Your task to perform on an android device: install app "Clock" Image 0: 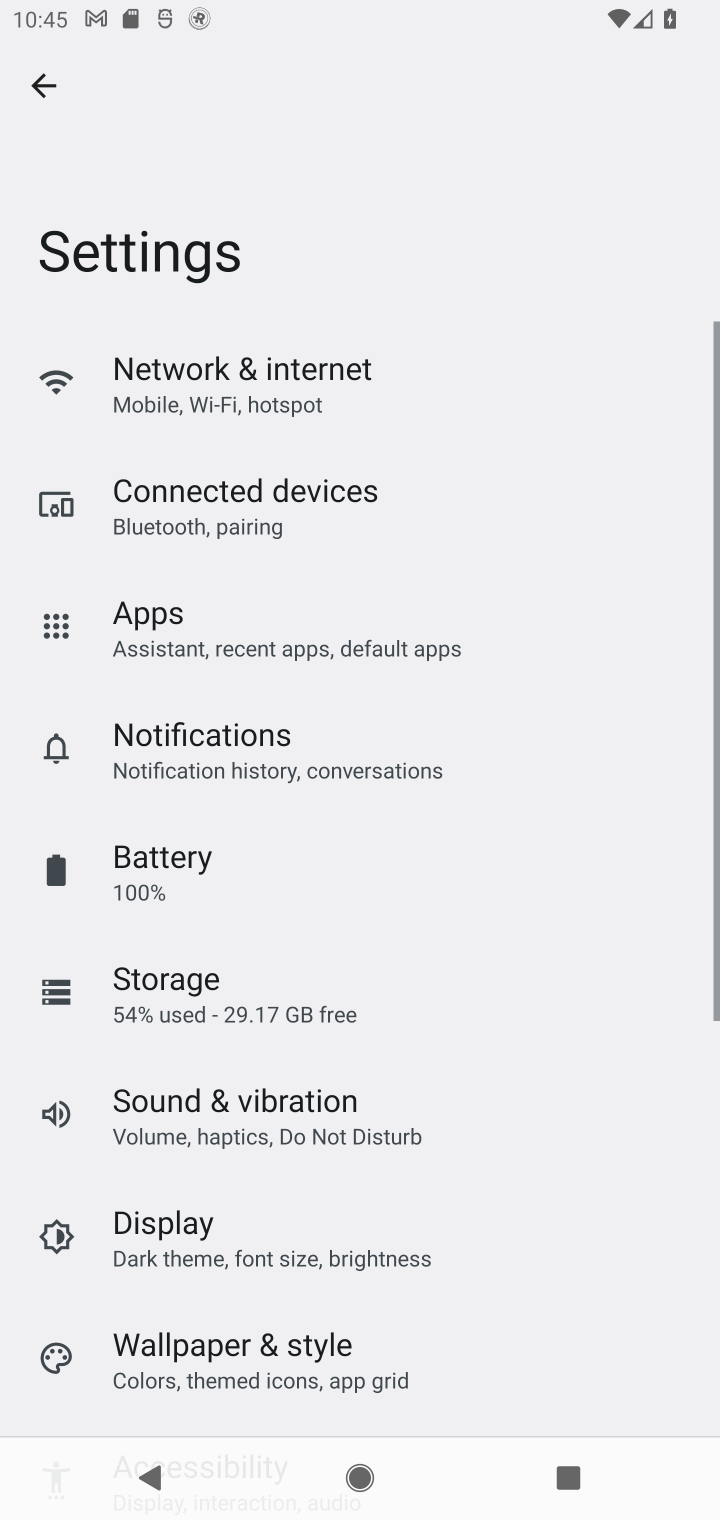
Step 0: press home button
Your task to perform on an android device: install app "Clock" Image 1: 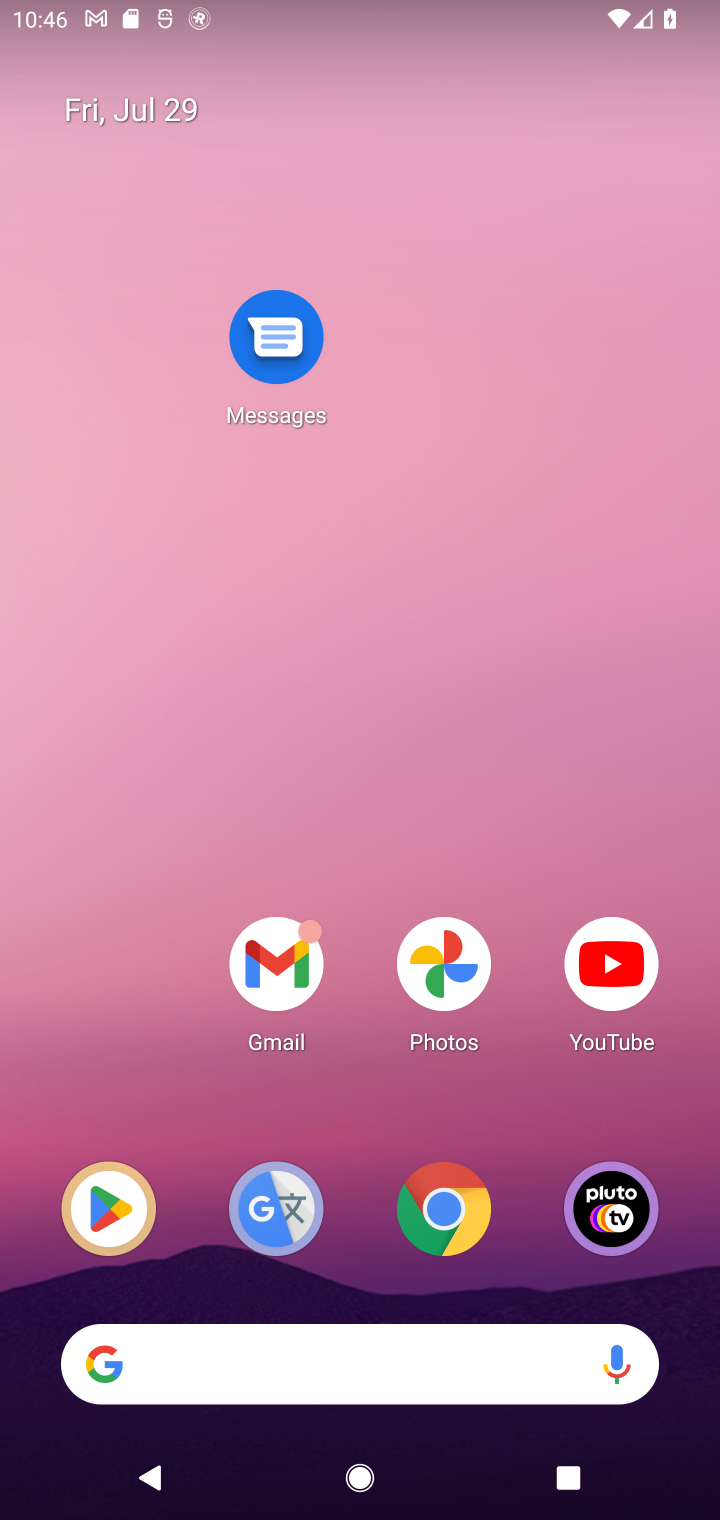
Step 1: drag from (349, 1329) to (315, 135)
Your task to perform on an android device: install app "Clock" Image 2: 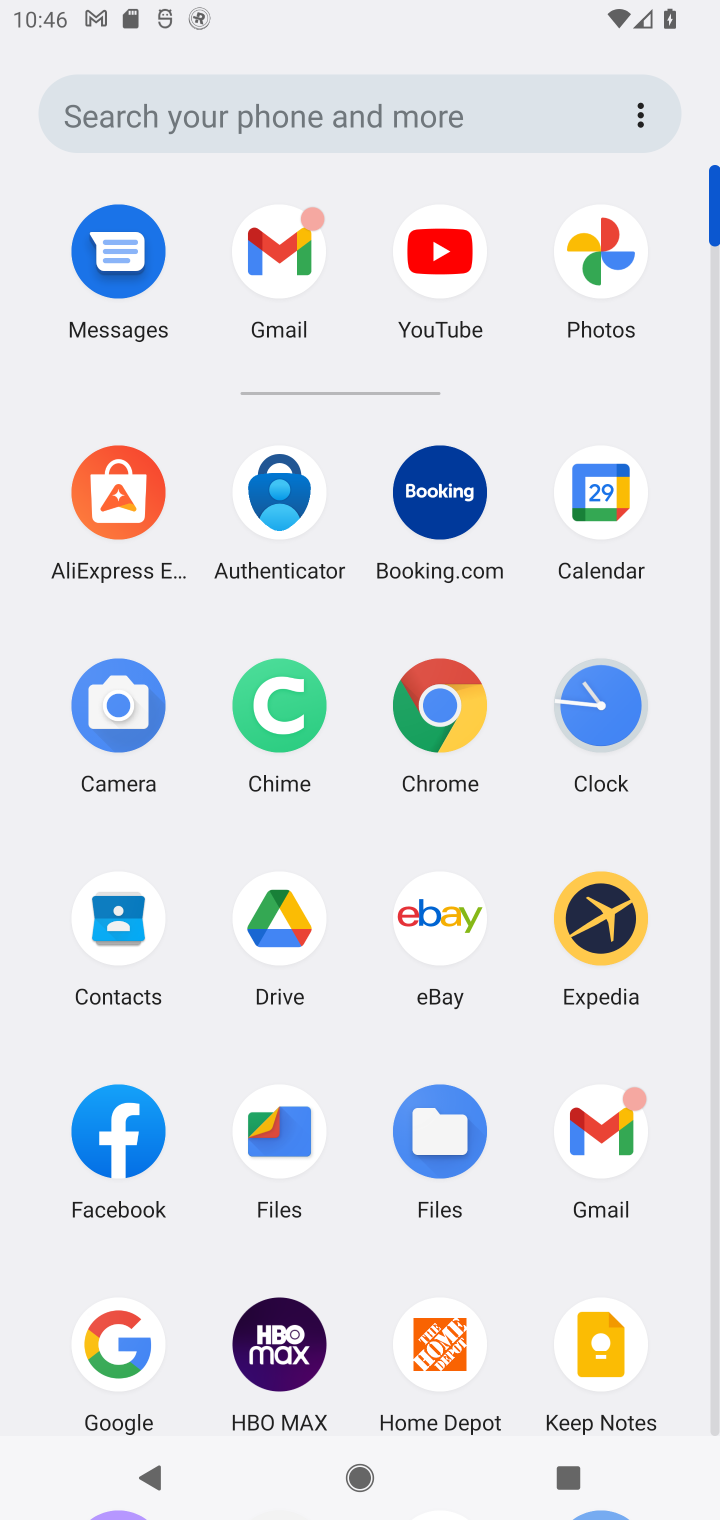
Step 2: drag from (346, 1159) to (287, 439)
Your task to perform on an android device: install app "Clock" Image 3: 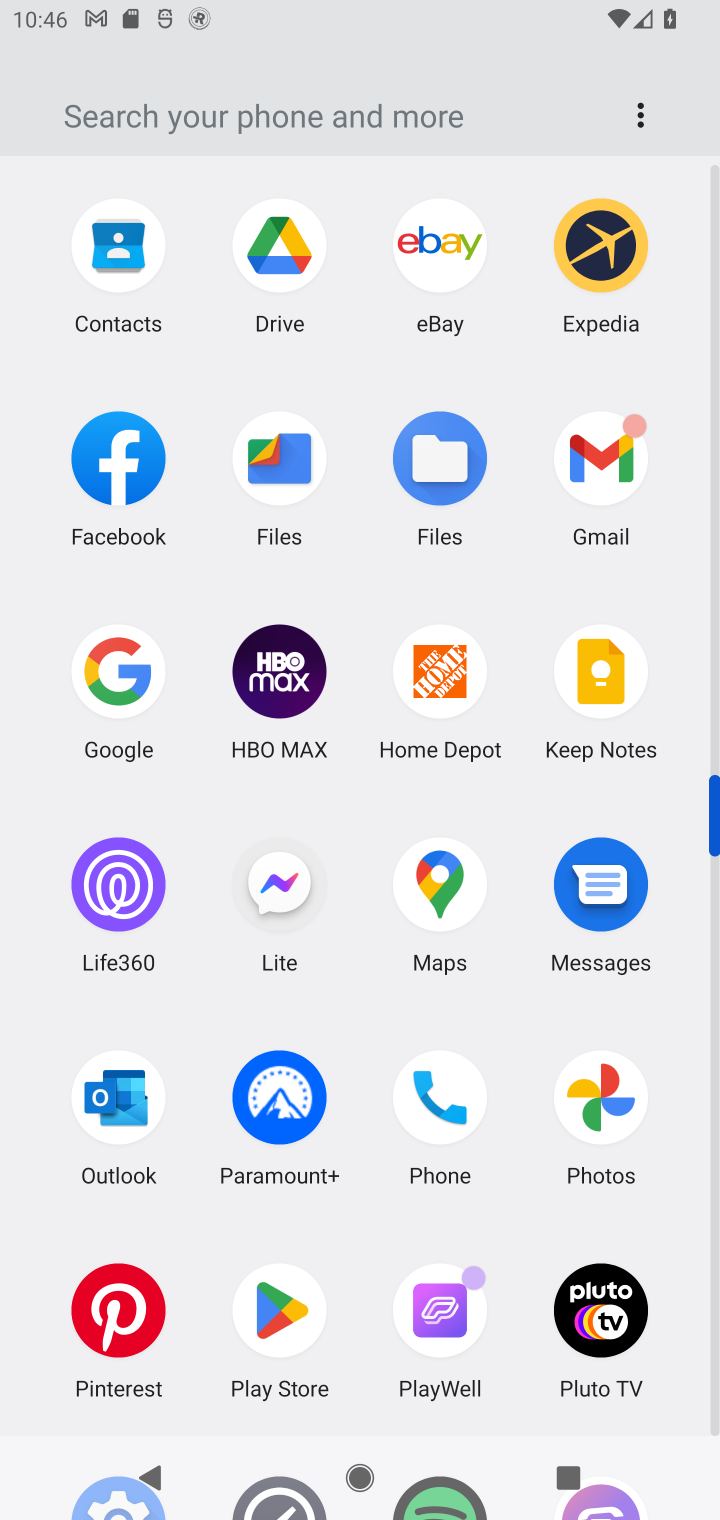
Step 3: drag from (395, 1224) to (367, 753)
Your task to perform on an android device: install app "Clock" Image 4: 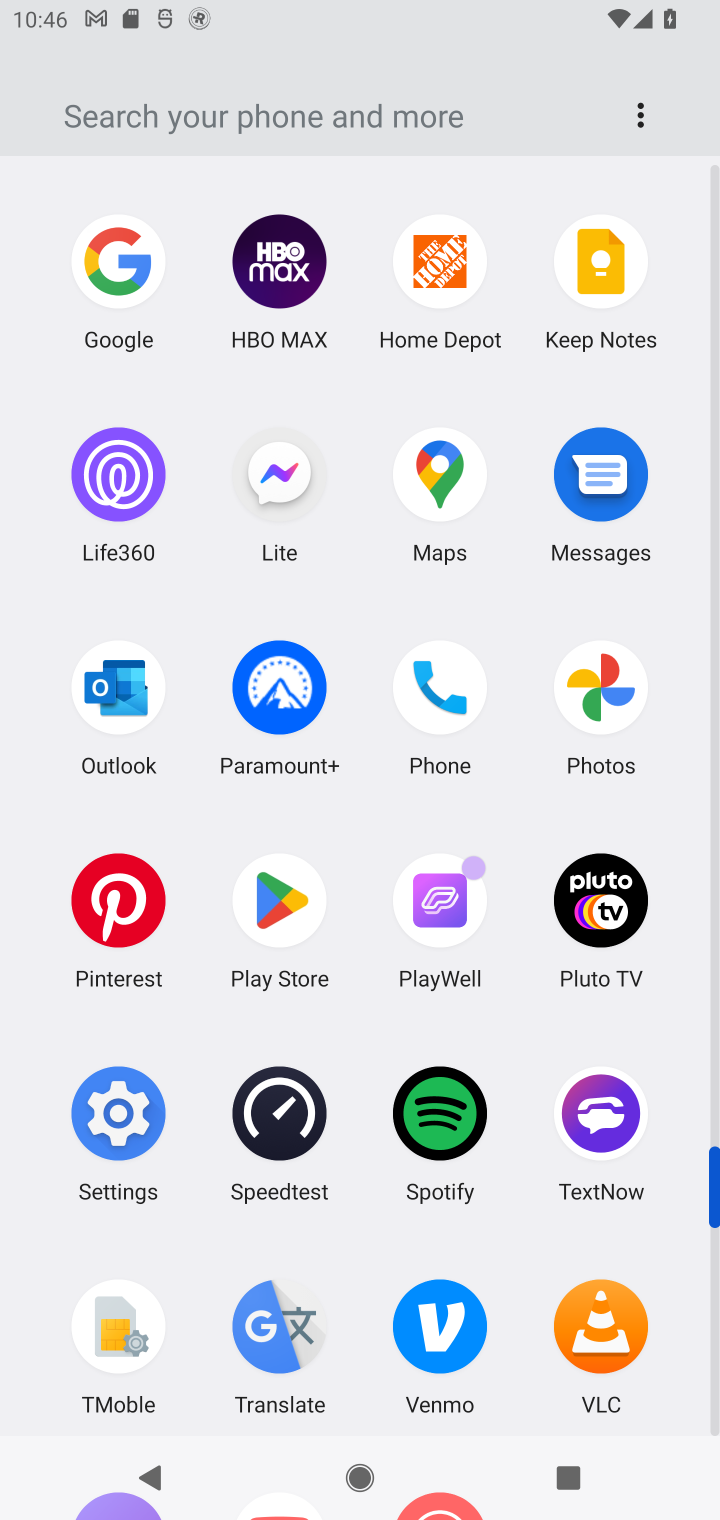
Step 4: click (274, 907)
Your task to perform on an android device: install app "Clock" Image 5: 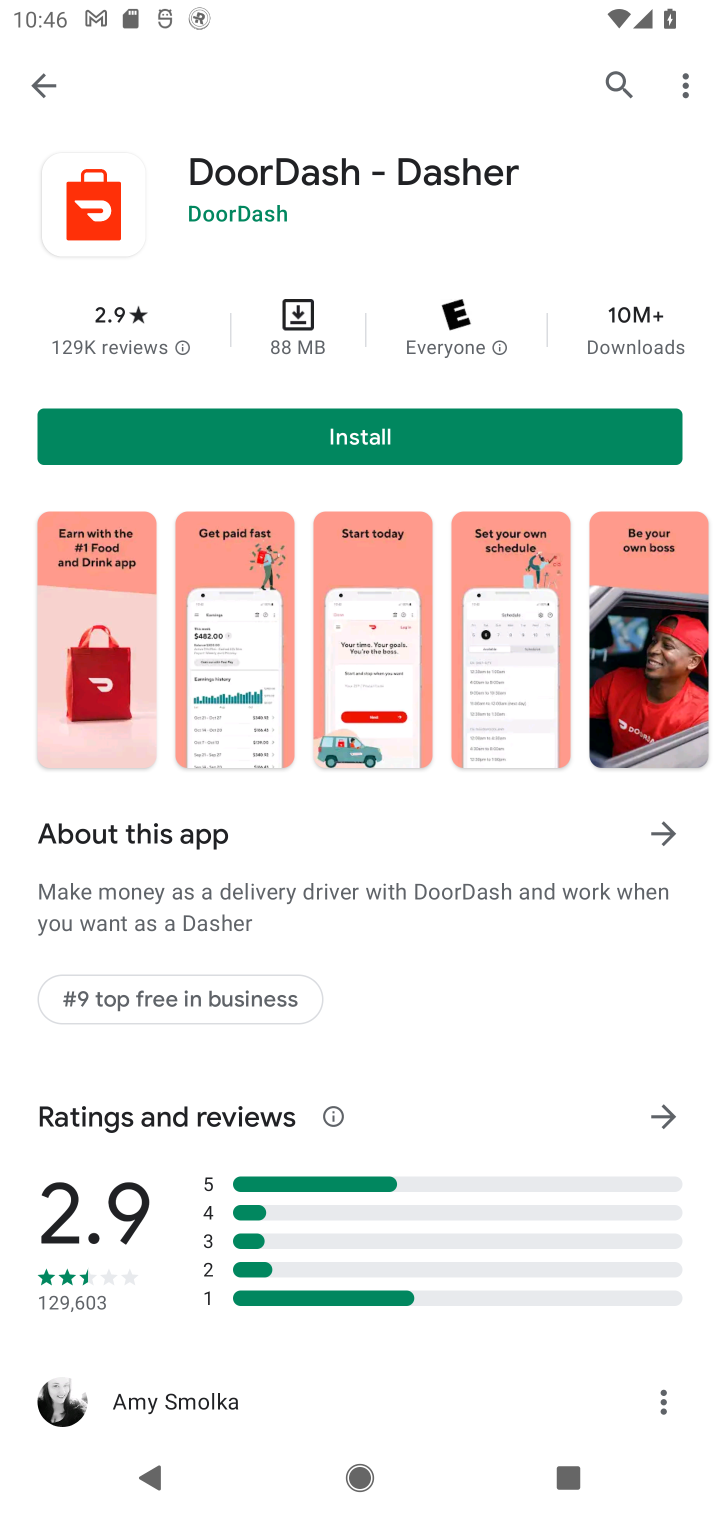
Step 5: click (616, 82)
Your task to perform on an android device: install app "Clock" Image 6: 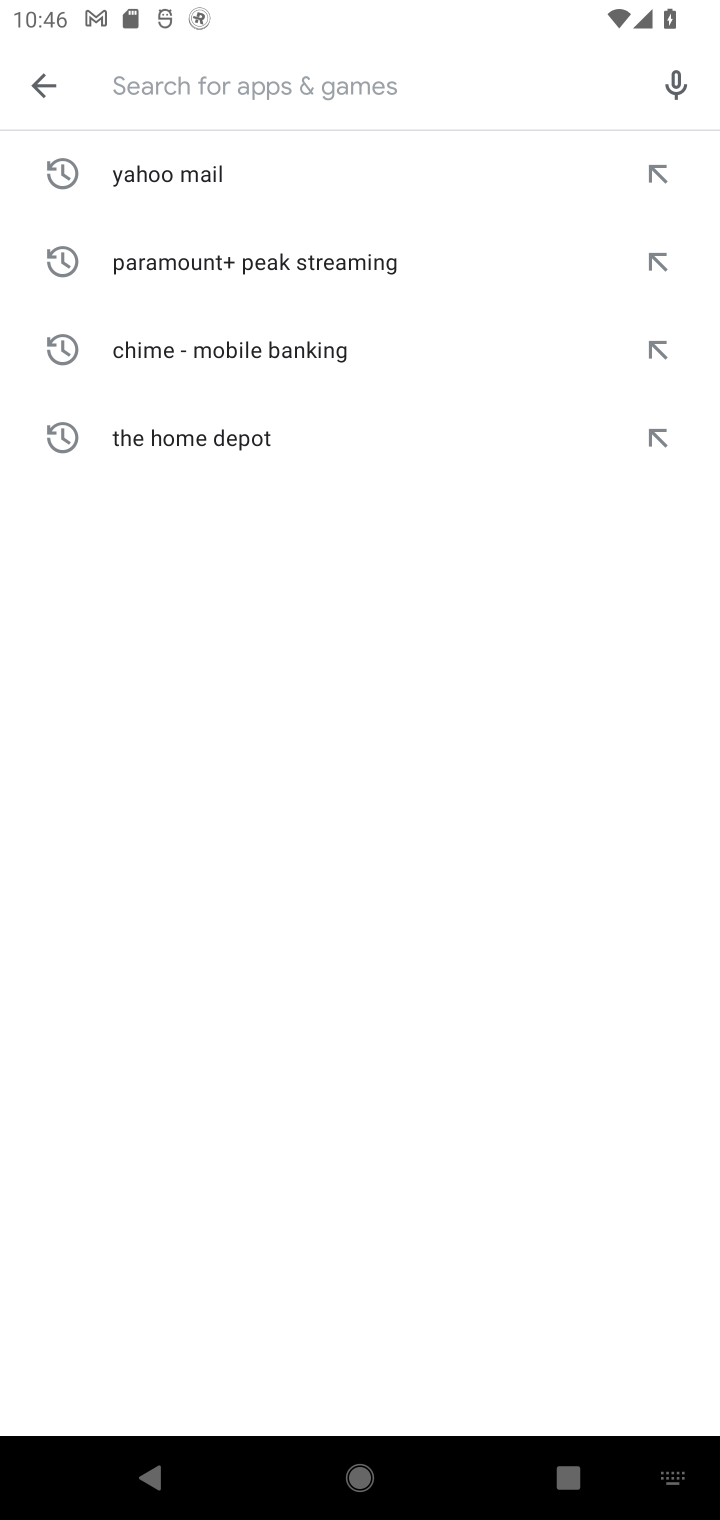
Step 6: type "Clock"
Your task to perform on an android device: install app "Clock" Image 7: 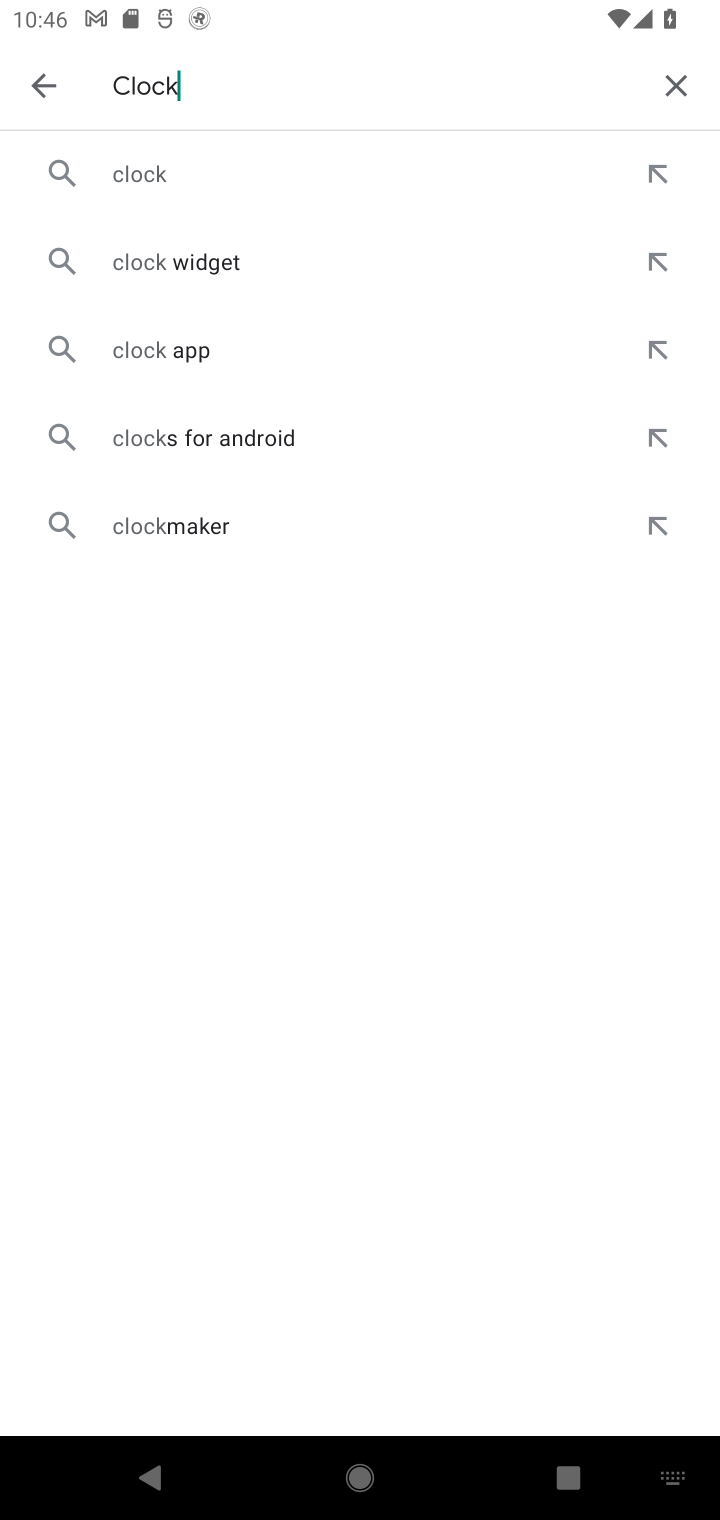
Step 7: click (169, 183)
Your task to perform on an android device: install app "Clock" Image 8: 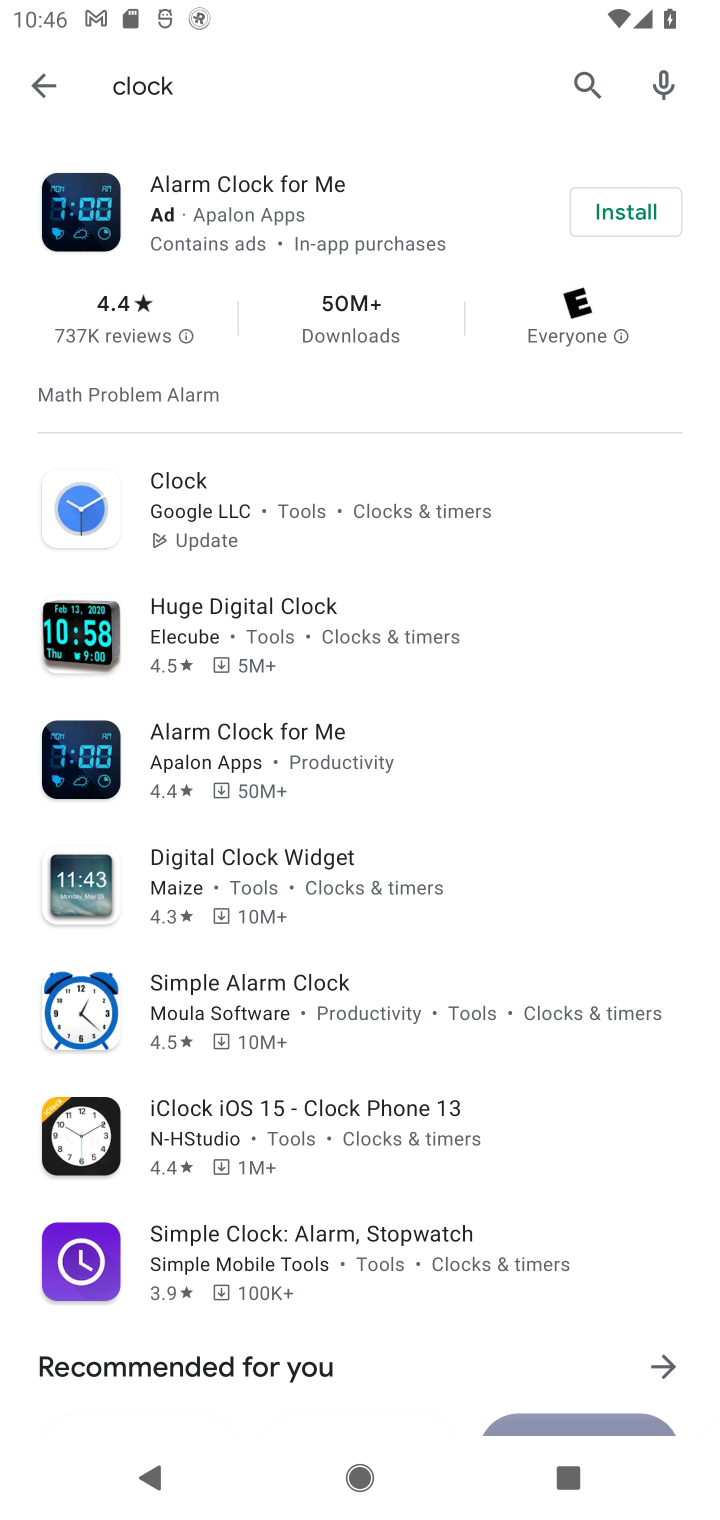
Step 8: click (186, 484)
Your task to perform on an android device: install app "Clock" Image 9: 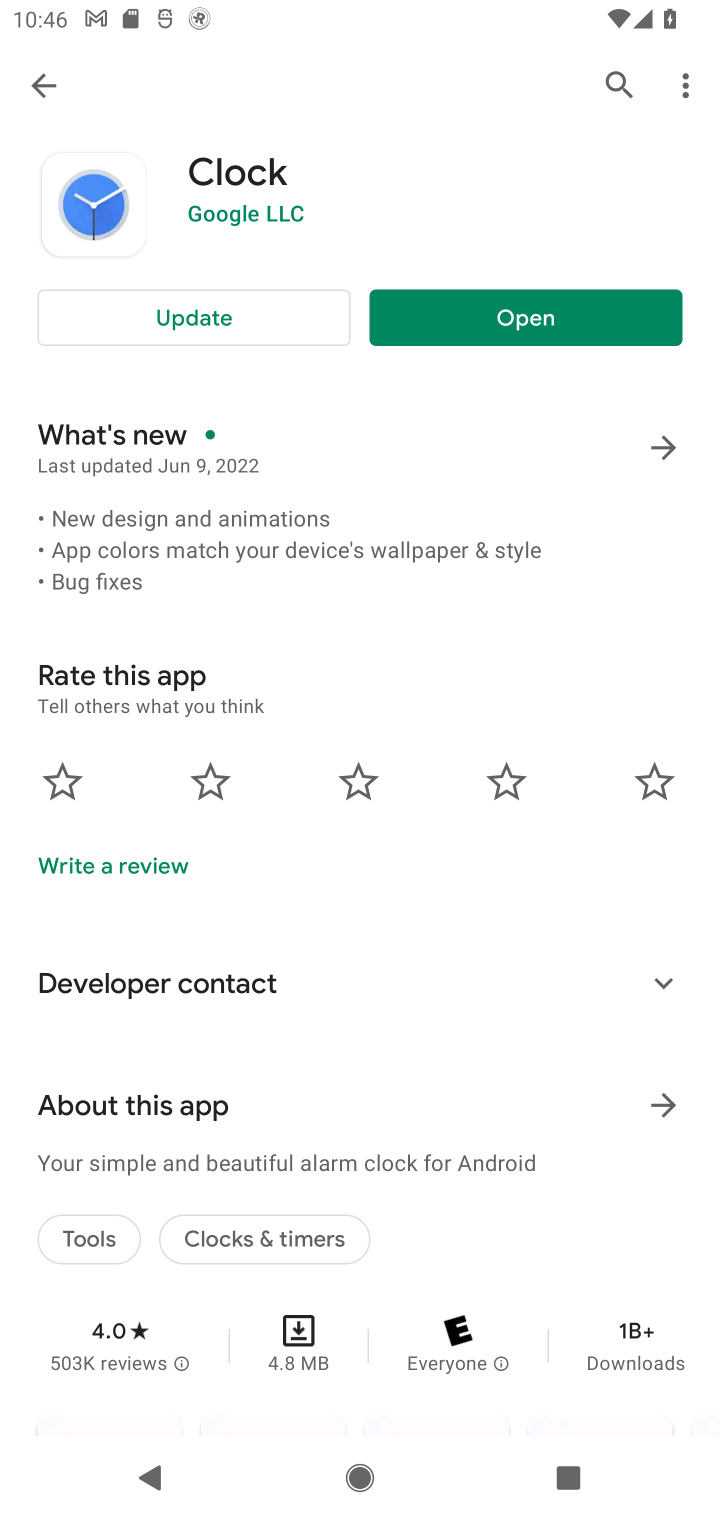
Step 9: task complete